Your task to perform on an android device: toggle translation in the chrome app Image 0: 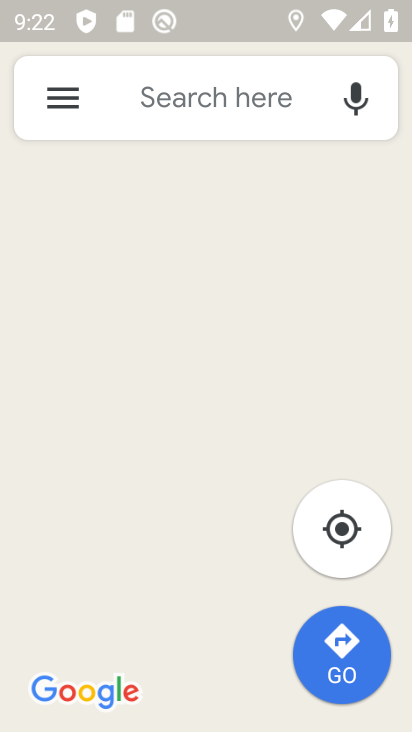
Step 0: drag from (409, 429) to (187, 219)
Your task to perform on an android device: toggle translation in the chrome app Image 1: 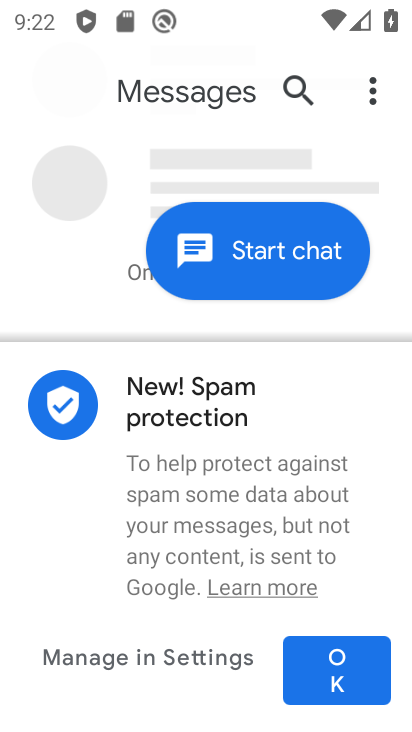
Step 1: press back button
Your task to perform on an android device: toggle translation in the chrome app Image 2: 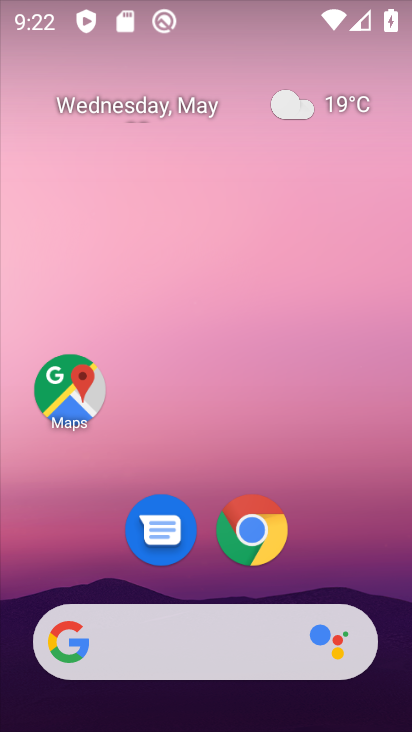
Step 2: drag from (153, 233) to (151, 156)
Your task to perform on an android device: toggle translation in the chrome app Image 3: 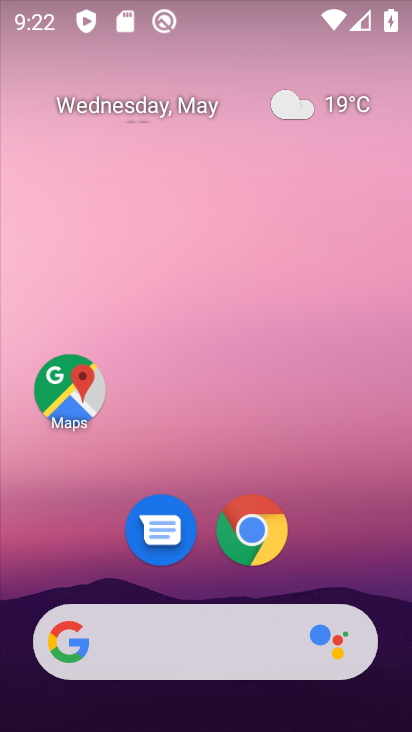
Step 3: drag from (296, 650) to (139, 171)
Your task to perform on an android device: toggle translation in the chrome app Image 4: 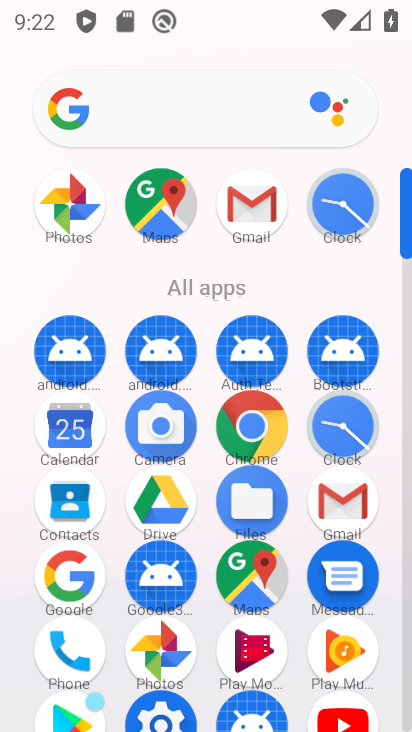
Step 4: click (253, 419)
Your task to perform on an android device: toggle translation in the chrome app Image 5: 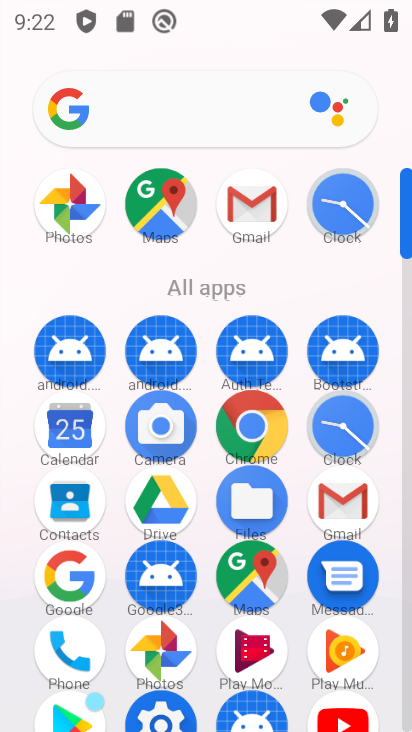
Step 5: click (252, 418)
Your task to perform on an android device: toggle translation in the chrome app Image 6: 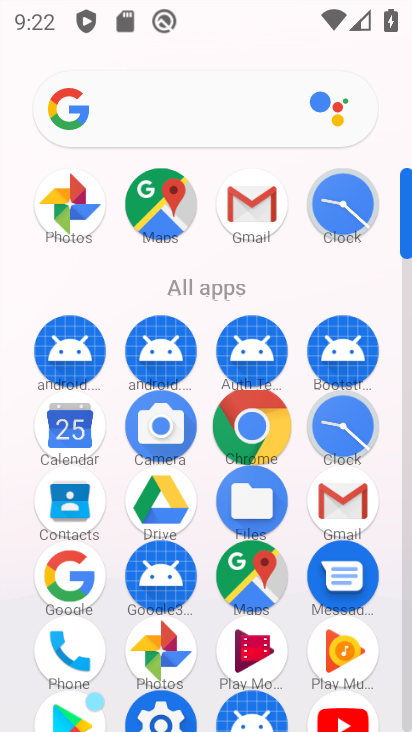
Step 6: click (252, 418)
Your task to perform on an android device: toggle translation in the chrome app Image 7: 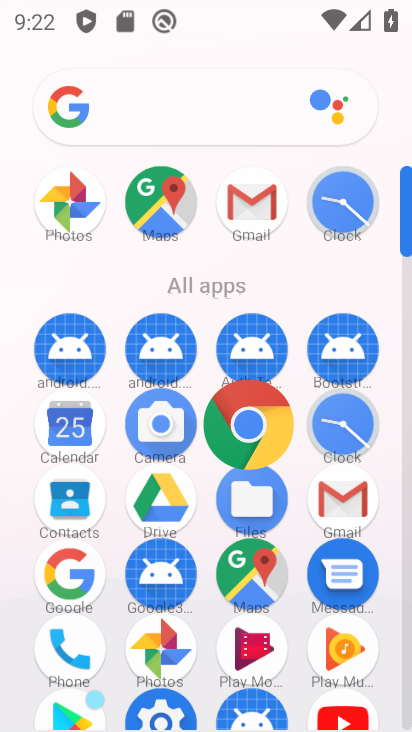
Step 7: click (253, 416)
Your task to perform on an android device: toggle translation in the chrome app Image 8: 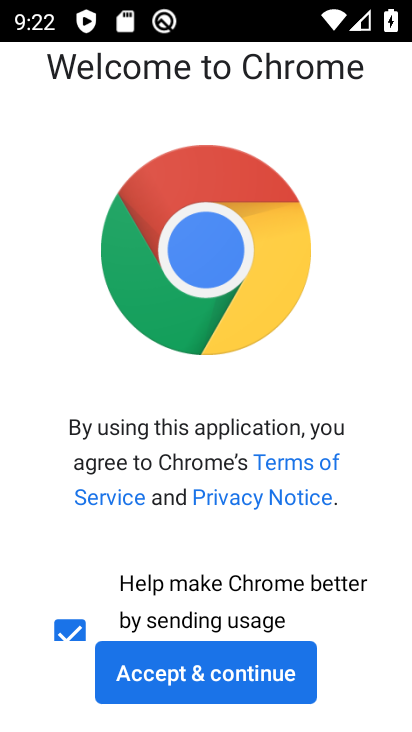
Step 8: click (212, 672)
Your task to perform on an android device: toggle translation in the chrome app Image 9: 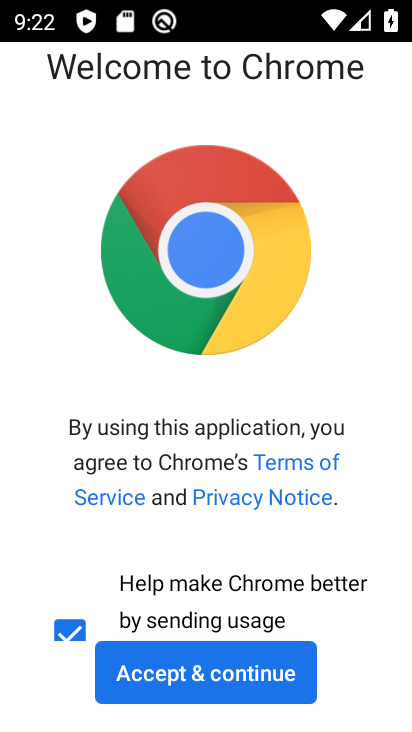
Step 9: click (212, 672)
Your task to perform on an android device: toggle translation in the chrome app Image 10: 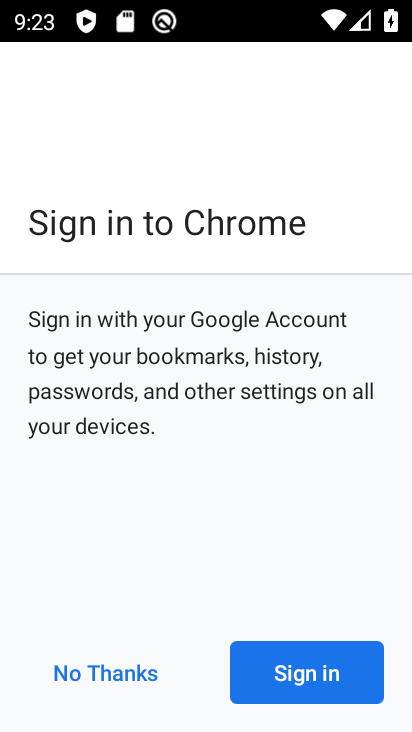
Step 10: click (216, 670)
Your task to perform on an android device: toggle translation in the chrome app Image 11: 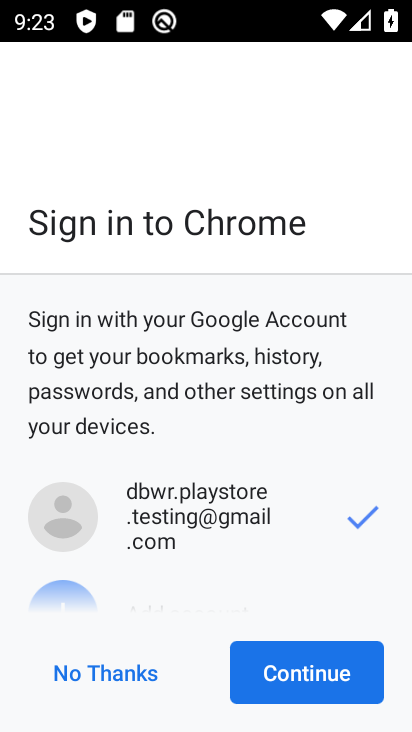
Step 11: click (218, 667)
Your task to perform on an android device: toggle translation in the chrome app Image 12: 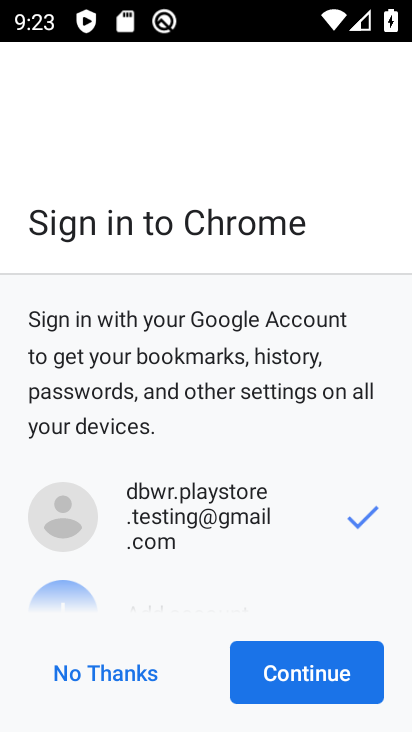
Step 12: click (217, 659)
Your task to perform on an android device: toggle translation in the chrome app Image 13: 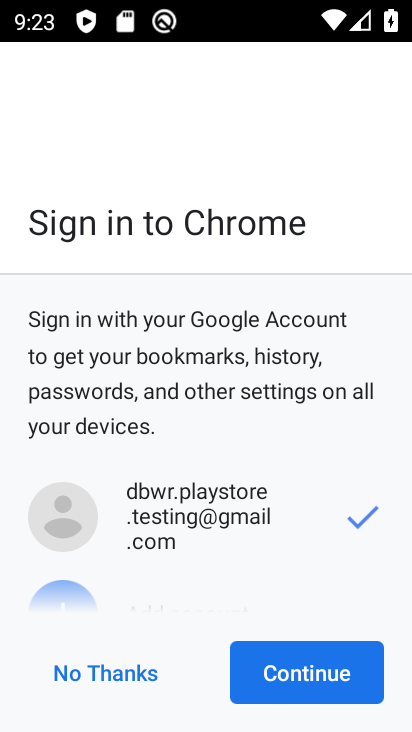
Step 13: click (337, 670)
Your task to perform on an android device: toggle translation in the chrome app Image 14: 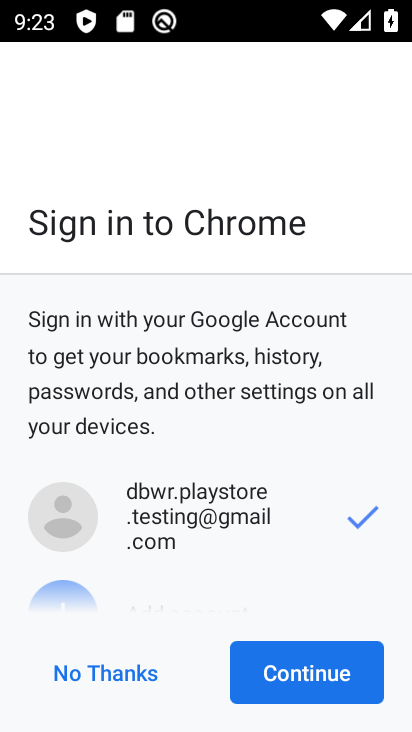
Step 14: click (339, 677)
Your task to perform on an android device: toggle translation in the chrome app Image 15: 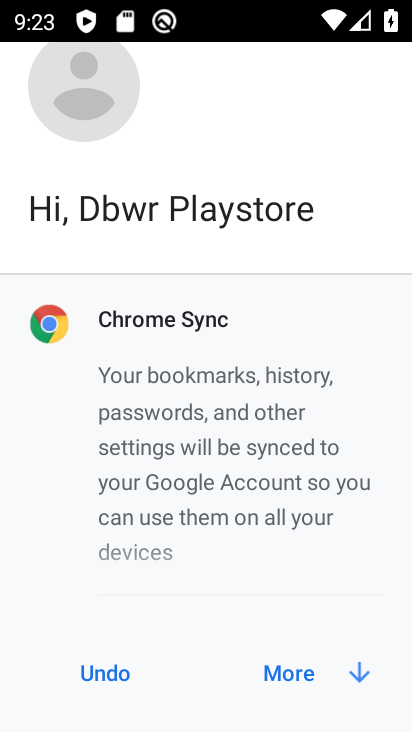
Step 15: click (339, 677)
Your task to perform on an android device: toggle translation in the chrome app Image 16: 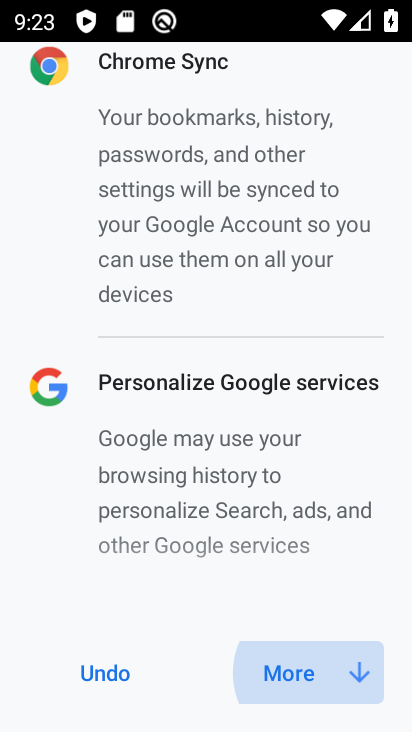
Step 16: click (339, 676)
Your task to perform on an android device: toggle translation in the chrome app Image 17: 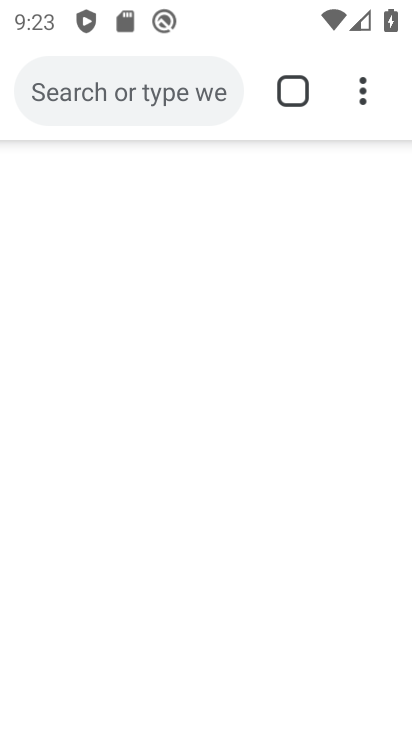
Step 17: click (317, 672)
Your task to perform on an android device: toggle translation in the chrome app Image 18: 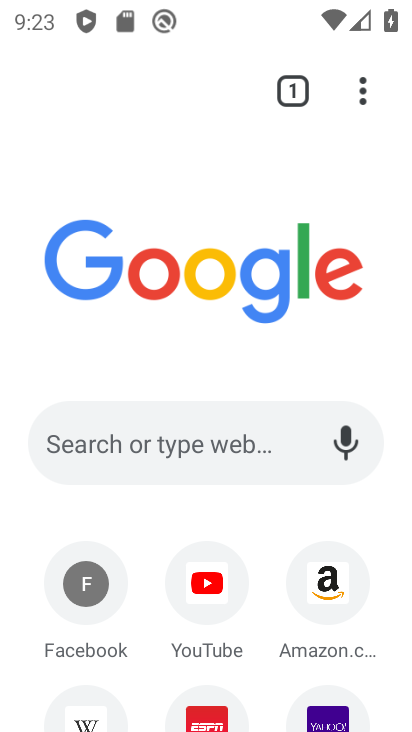
Step 18: drag from (360, 99) to (60, 551)
Your task to perform on an android device: toggle translation in the chrome app Image 19: 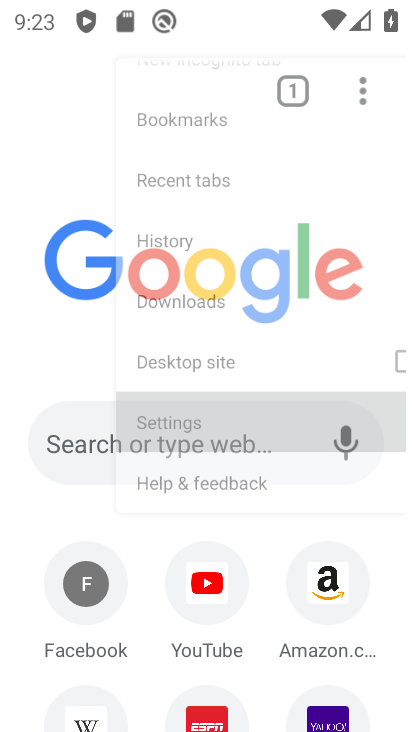
Step 19: click (60, 548)
Your task to perform on an android device: toggle translation in the chrome app Image 20: 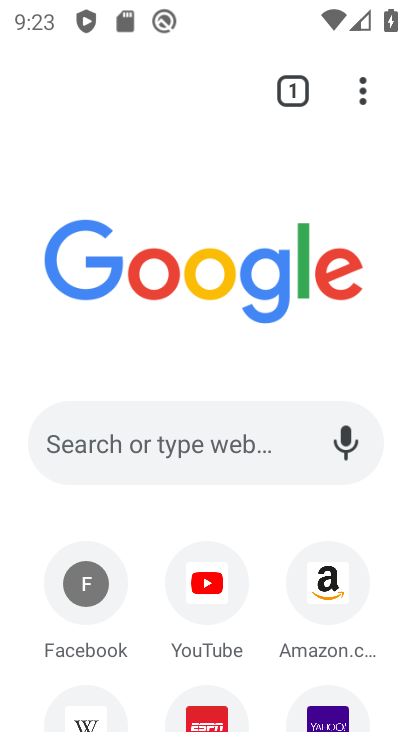
Step 20: click (60, 548)
Your task to perform on an android device: toggle translation in the chrome app Image 21: 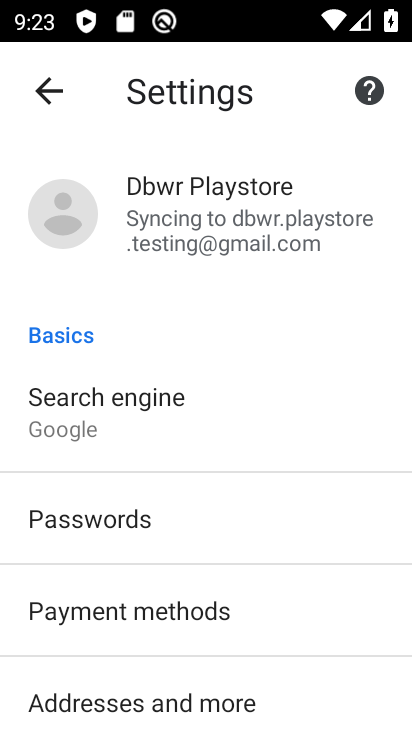
Step 21: drag from (117, 522) to (88, 132)
Your task to perform on an android device: toggle translation in the chrome app Image 22: 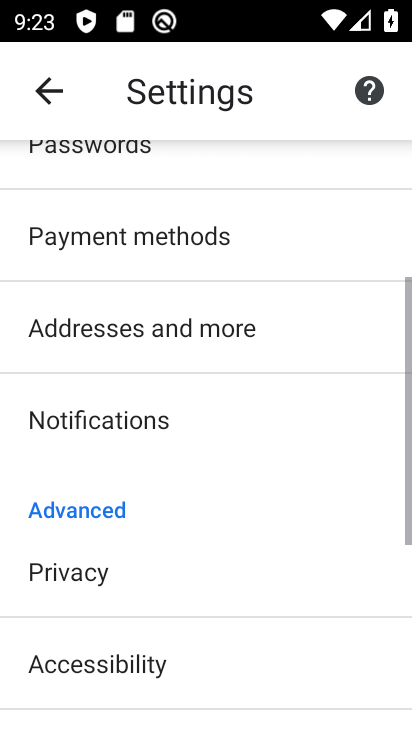
Step 22: drag from (186, 438) to (189, 70)
Your task to perform on an android device: toggle translation in the chrome app Image 23: 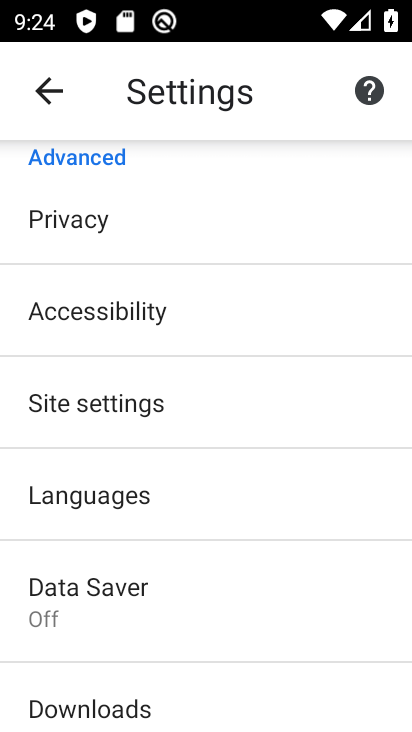
Step 23: click (92, 493)
Your task to perform on an android device: toggle translation in the chrome app Image 24: 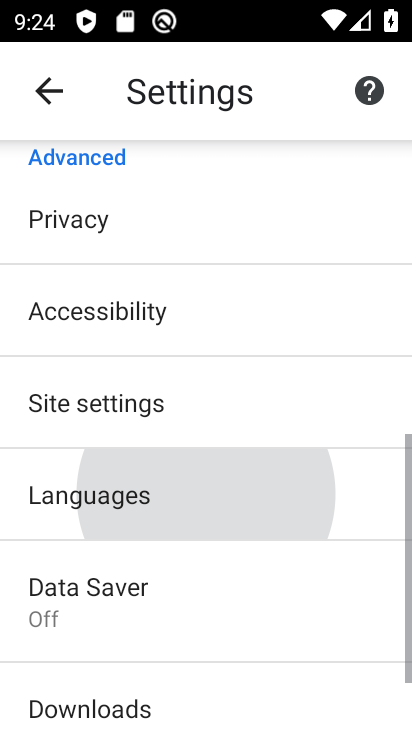
Step 24: click (92, 493)
Your task to perform on an android device: toggle translation in the chrome app Image 25: 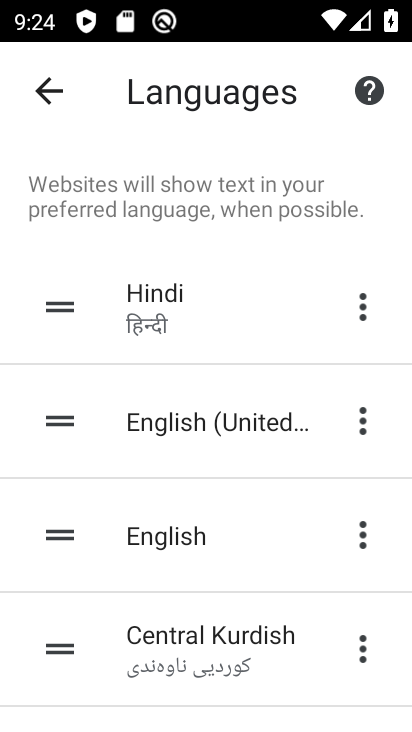
Step 25: drag from (220, 572) to (165, 266)
Your task to perform on an android device: toggle translation in the chrome app Image 26: 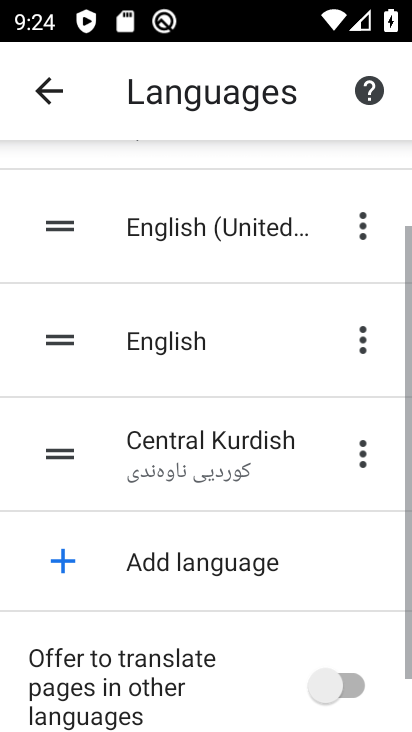
Step 26: drag from (220, 520) to (159, 219)
Your task to perform on an android device: toggle translation in the chrome app Image 27: 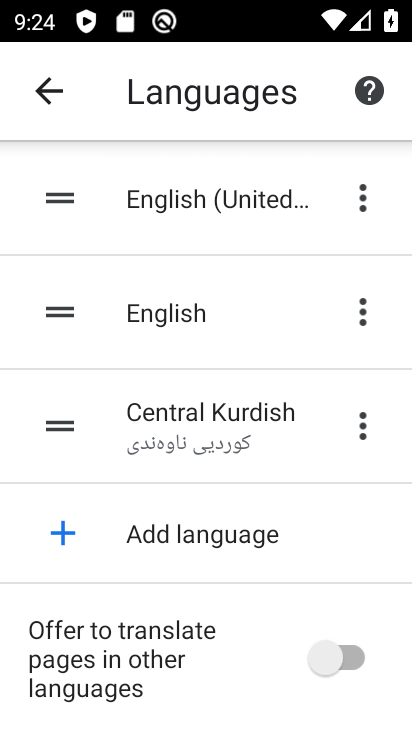
Step 27: drag from (181, 409) to (242, 148)
Your task to perform on an android device: toggle translation in the chrome app Image 28: 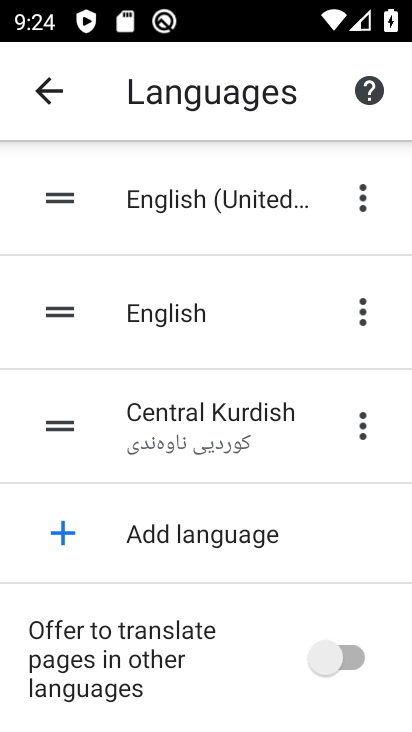
Step 28: click (327, 662)
Your task to perform on an android device: toggle translation in the chrome app Image 29: 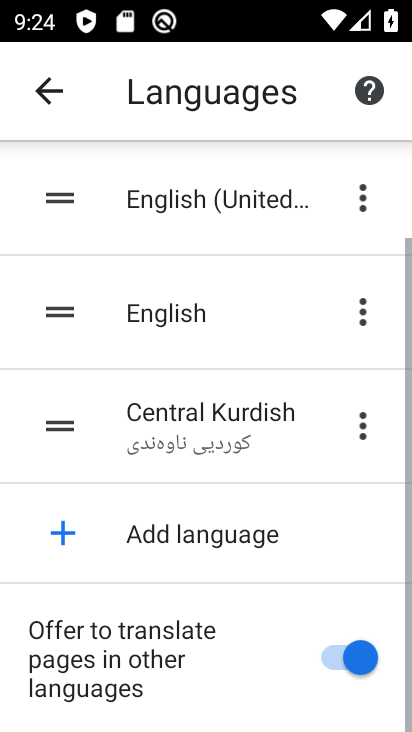
Step 29: task complete